Your task to perform on an android device: What's US dollar exchange rate against the Indian Rupee? Image 0: 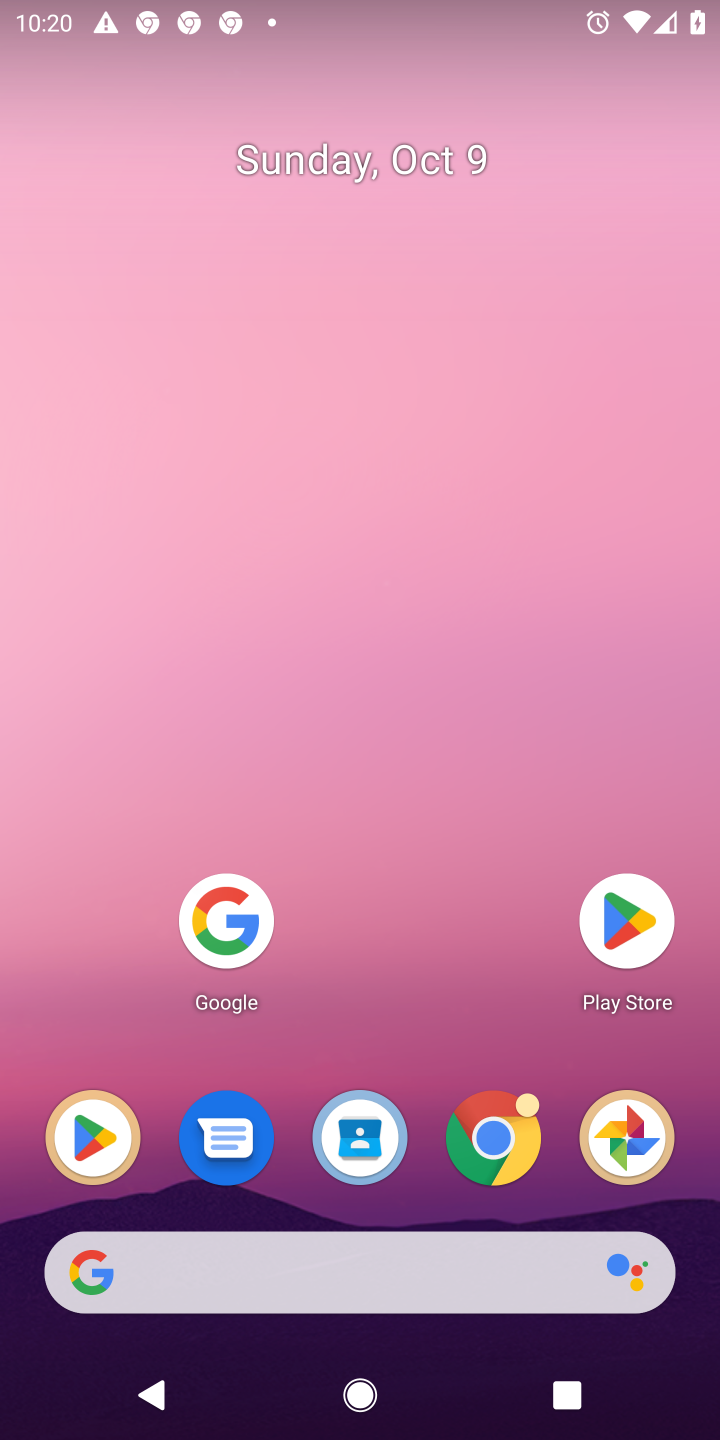
Step 0: click (226, 911)
Your task to perform on an android device: What's US dollar exchange rate against the Indian Rupee? Image 1: 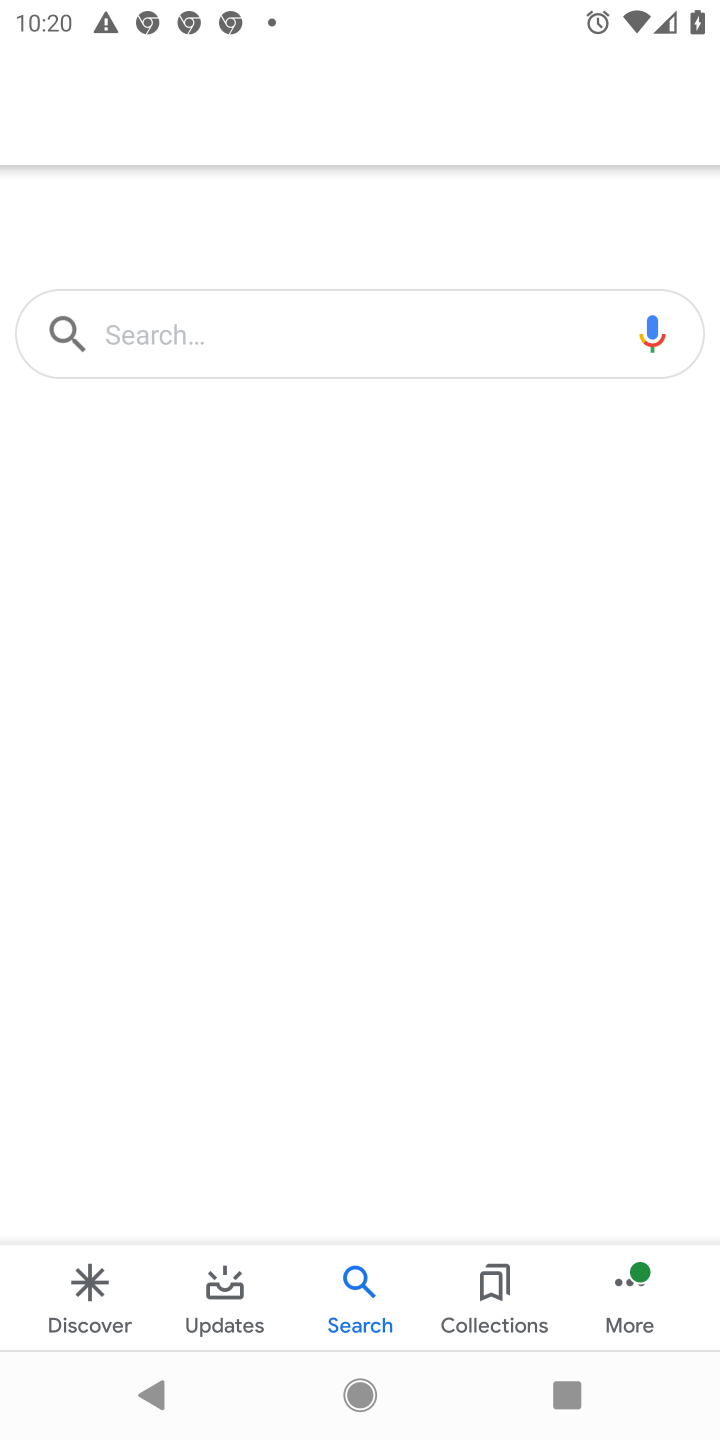
Step 1: click (312, 304)
Your task to perform on an android device: What's US dollar exchange rate against the Indian Rupee? Image 2: 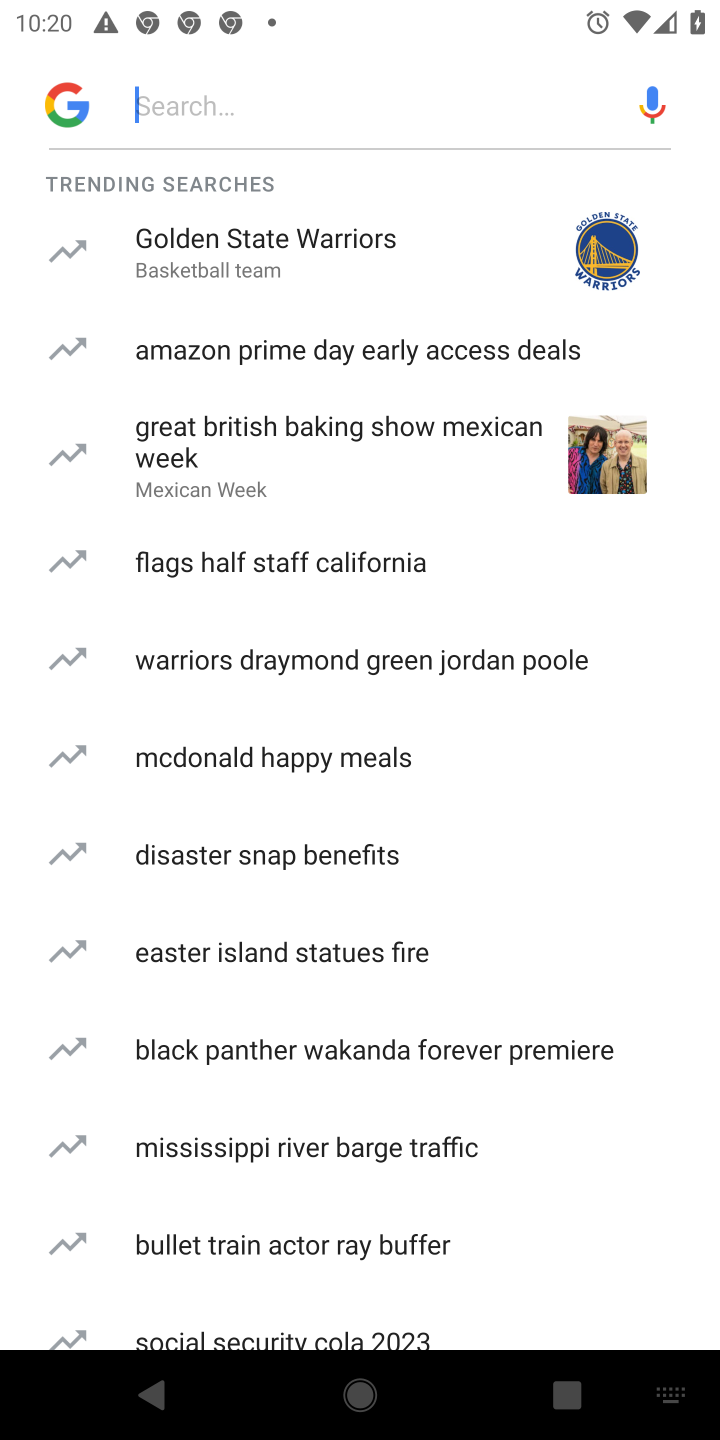
Step 2: type "What's US dollar exchange rate against the Indian Rupee? "
Your task to perform on an android device: What's US dollar exchange rate against the Indian Rupee? Image 3: 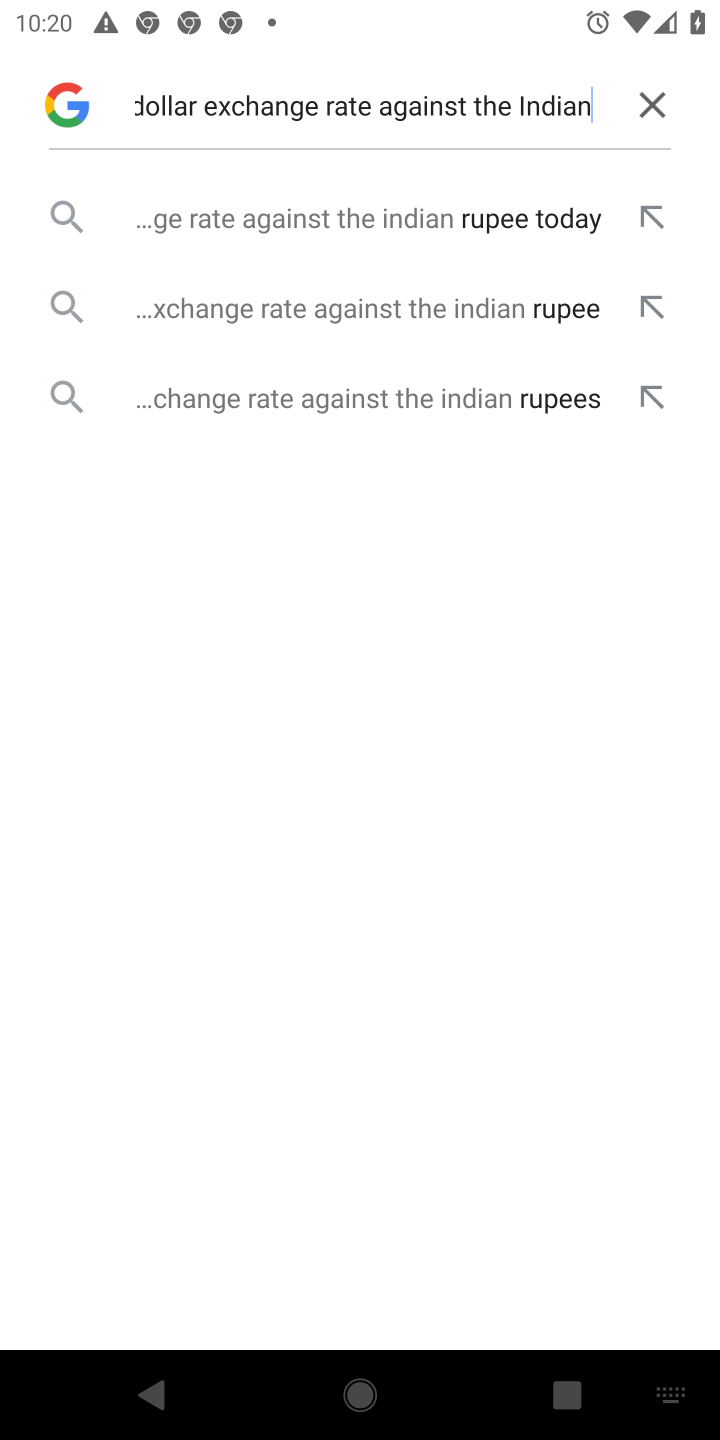
Step 3: click (377, 234)
Your task to perform on an android device: What's US dollar exchange rate against the Indian Rupee? Image 4: 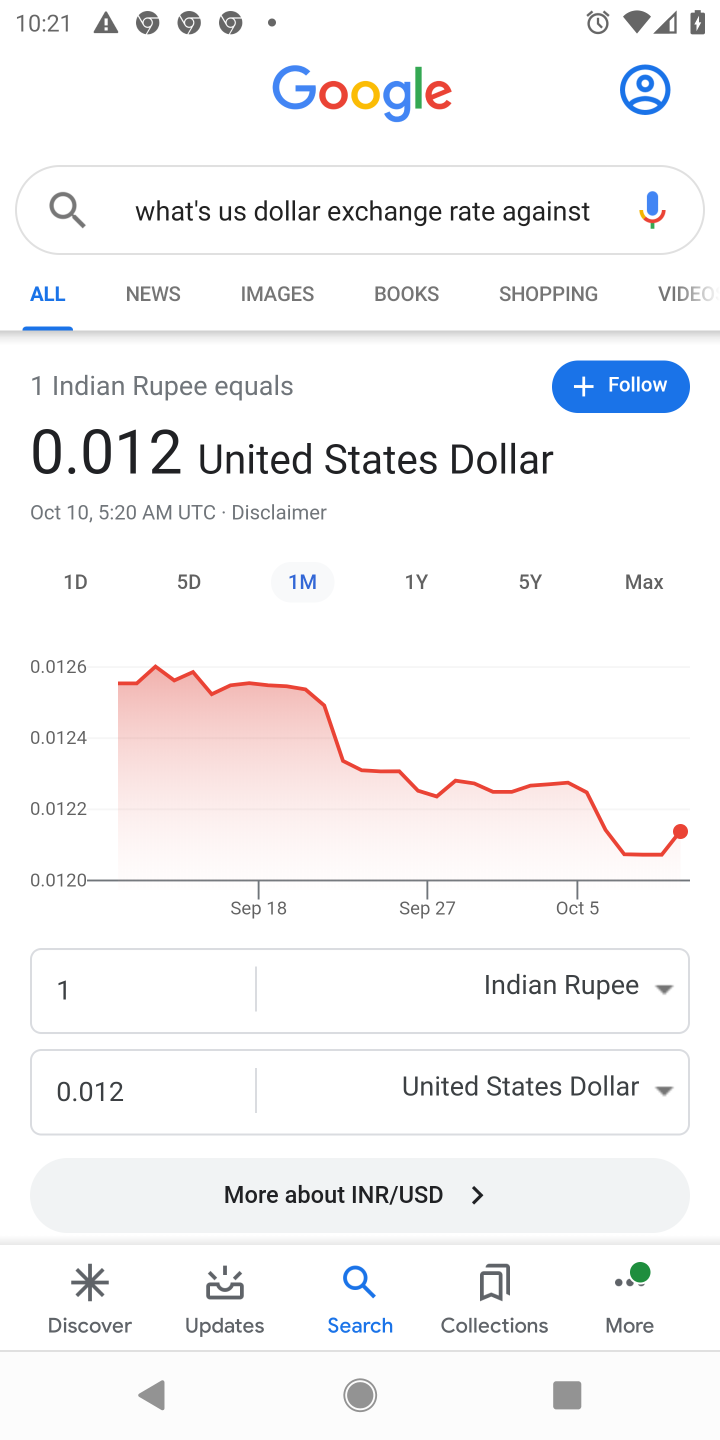
Step 4: task complete